Your task to perform on an android device: Turn on the flashlight Image 0: 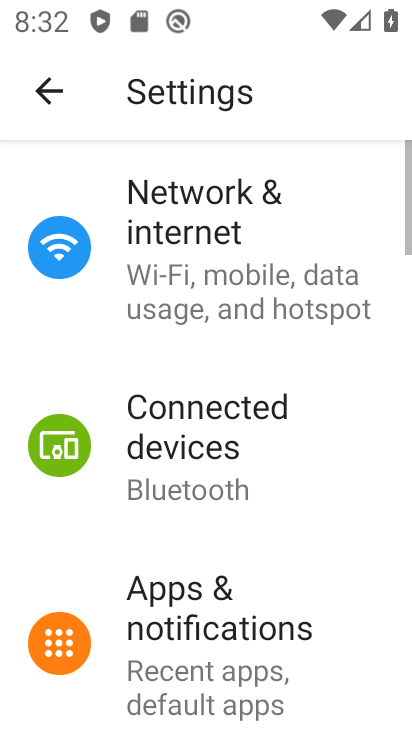
Step 0: press home button
Your task to perform on an android device: Turn on the flashlight Image 1: 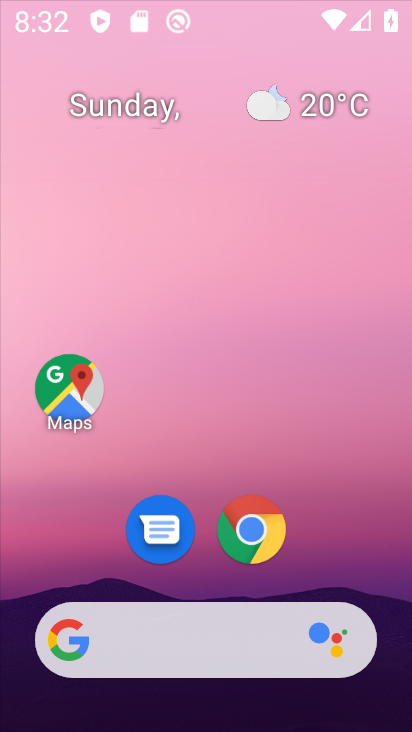
Step 1: task complete